Your task to perform on an android device: Search for sushi restaurants on Maps Image 0: 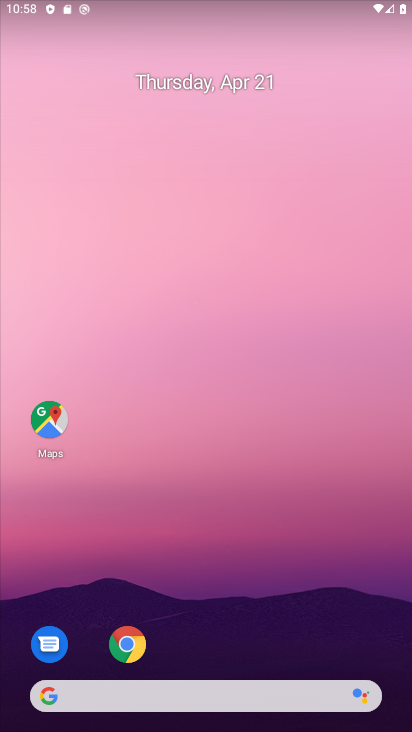
Step 0: drag from (313, 628) to (222, 116)
Your task to perform on an android device: Search for sushi restaurants on Maps Image 1: 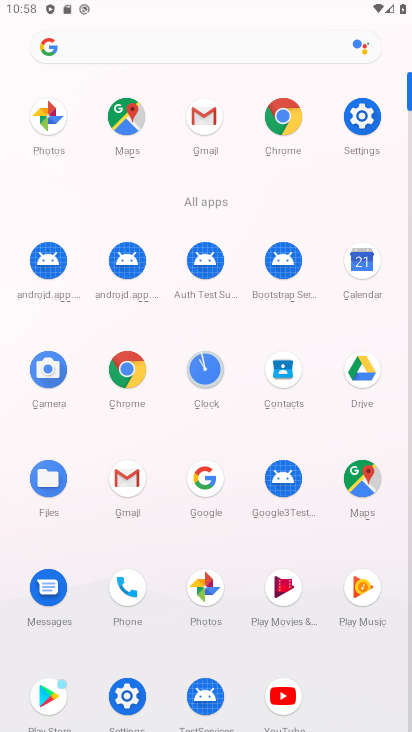
Step 1: click (123, 128)
Your task to perform on an android device: Search for sushi restaurants on Maps Image 2: 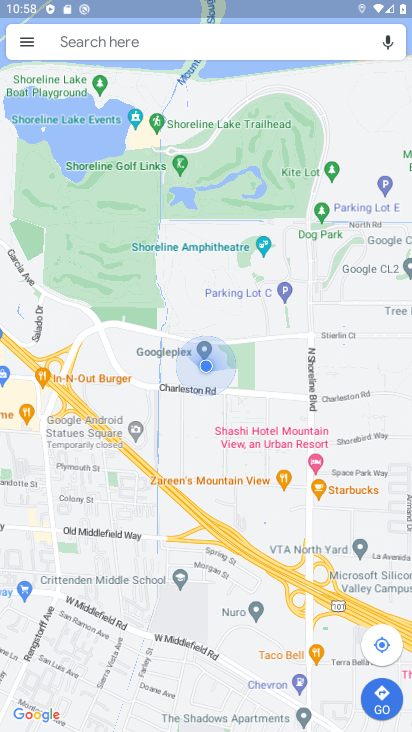
Step 2: click (119, 40)
Your task to perform on an android device: Search for sushi restaurants on Maps Image 3: 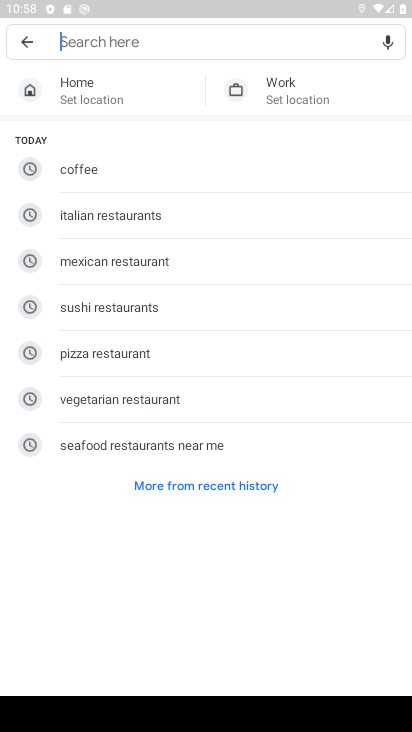
Step 3: click (172, 323)
Your task to perform on an android device: Search for sushi restaurants on Maps Image 4: 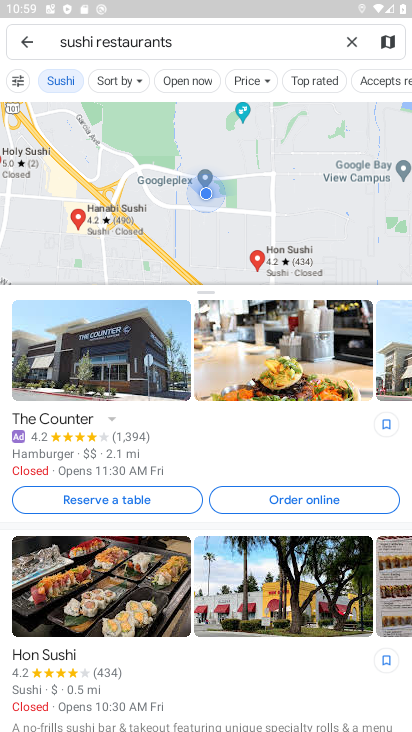
Step 4: task complete